Your task to perform on an android device: Open Google Maps Image 0: 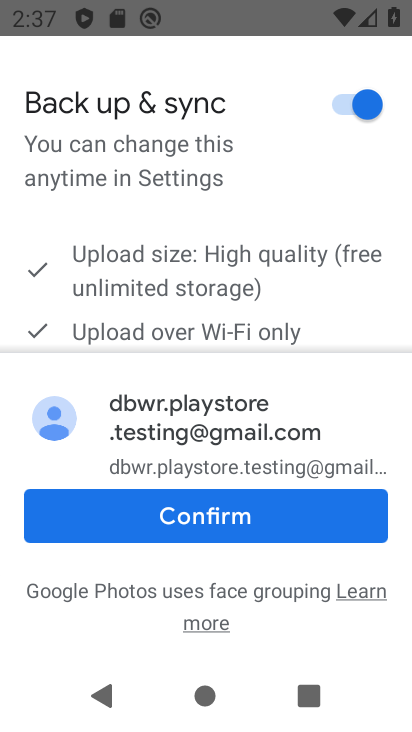
Step 0: press home button
Your task to perform on an android device: Open Google Maps Image 1: 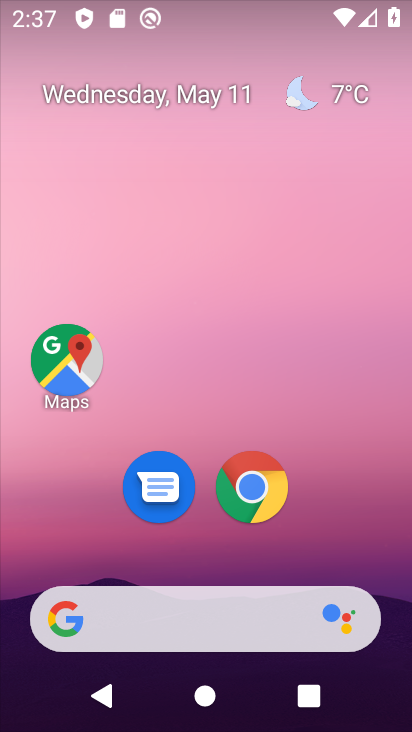
Step 1: drag from (213, 616) to (301, 86)
Your task to perform on an android device: Open Google Maps Image 2: 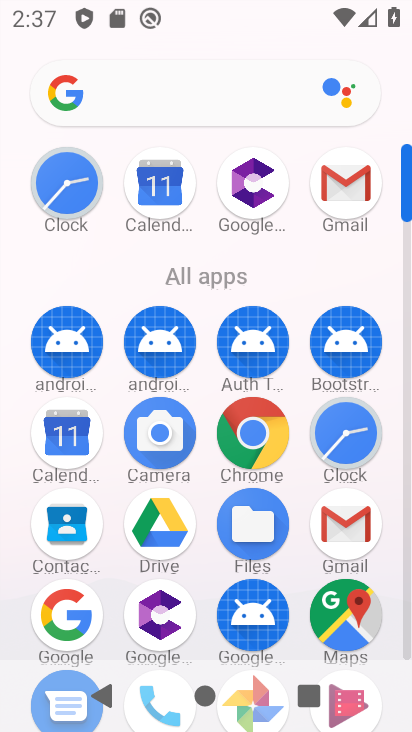
Step 2: click (336, 625)
Your task to perform on an android device: Open Google Maps Image 3: 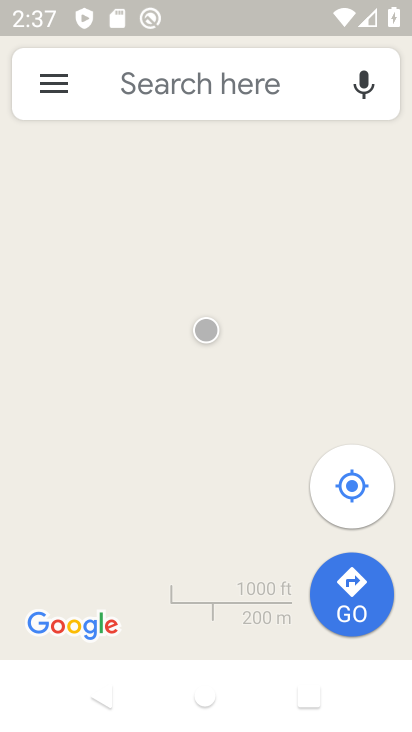
Step 3: task complete